Your task to perform on an android device: Show me popular videos on Youtube Image 0: 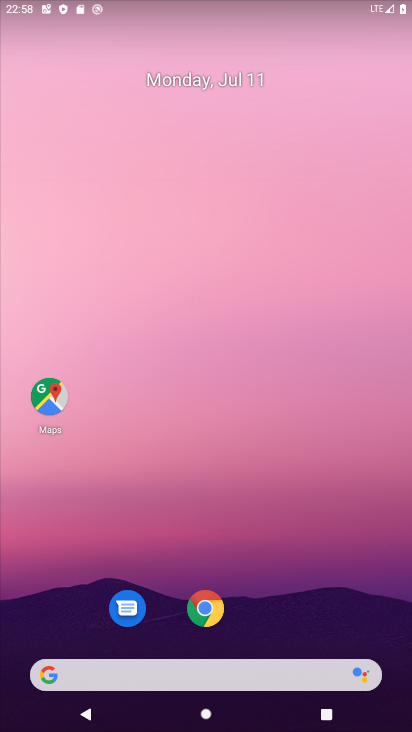
Step 0: click (399, 9)
Your task to perform on an android device: Show me popular videos on Youtube Image 1: 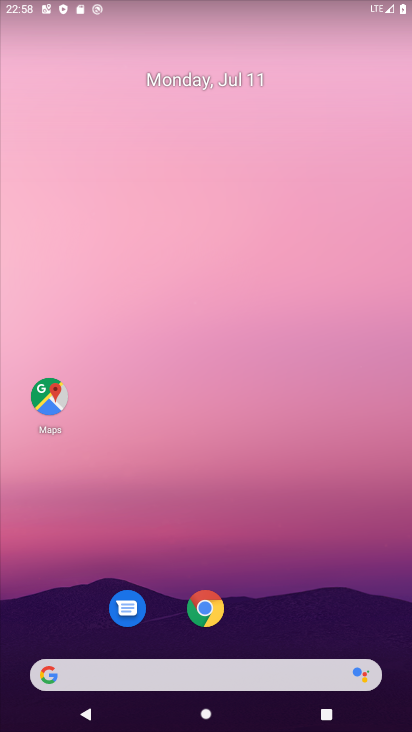
Step 1: drag from (26, 718) to (220, 112)
Your task to perform on an android device: Show me popular videos on Youtube Image 2: 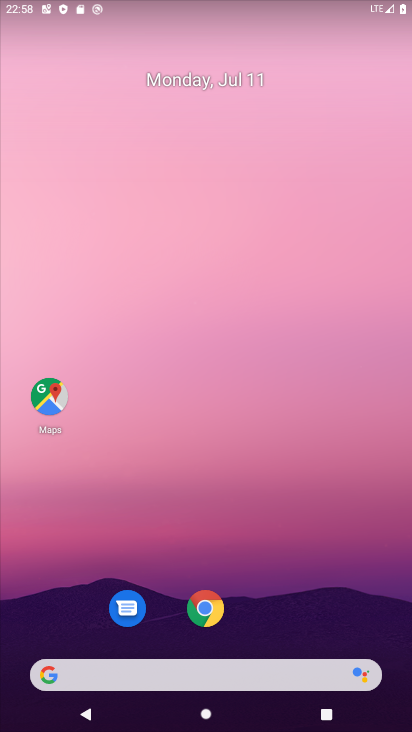
Step 2: drag from (34, 713) to (158, 282)
Your task to perform on an android device: Show me popular videos on Youtube Image 3: 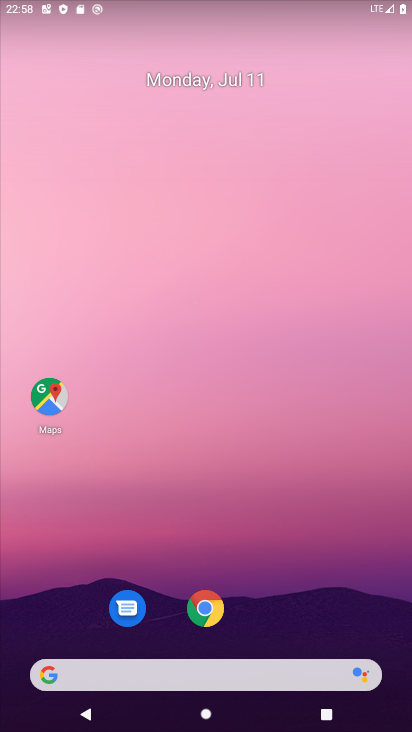
Step 3: drag from (59, 702) to (404, 68)
Your task to perform on an android device: Show me popular videos on Youtube Image 4: 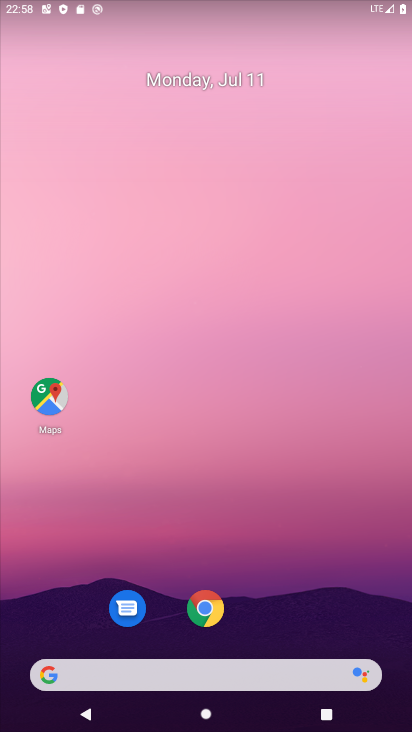
Step 4: drag from (20, 713) to (238, 152)
Your task to perform on an android device: Show me popular videos on Youtube Image 5: 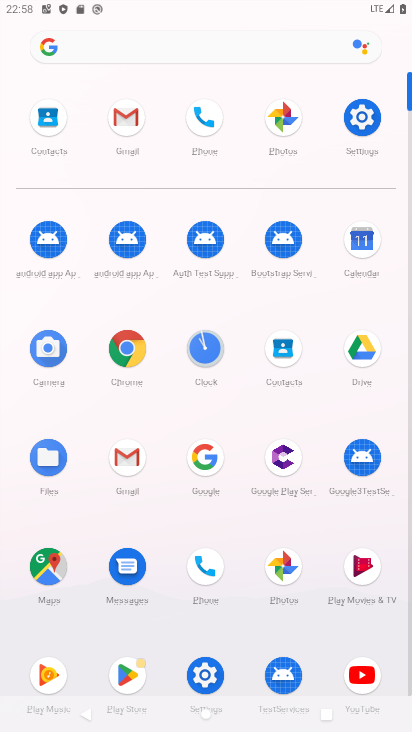
Step 5: click (359, 658)
Your task to perform on an android device: Show me popular videos on Youtube Image 6: 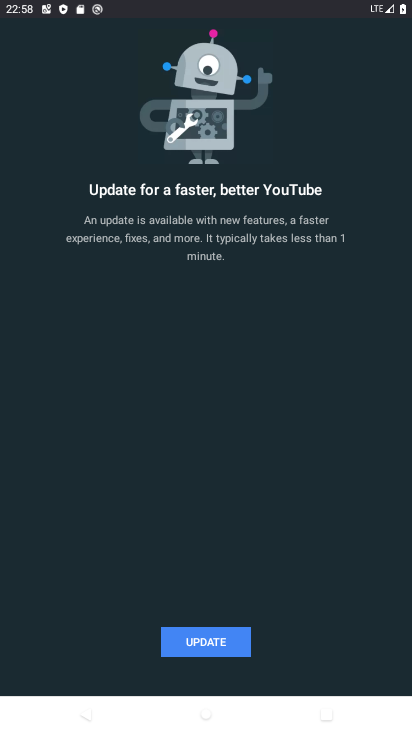
Step 6: click (229, 649)
Your task to perform on an android device: Show me popular videos on Youtube Image 7: 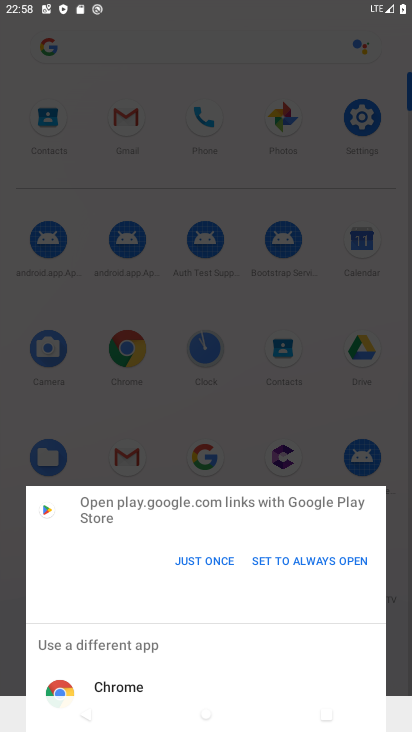
Step 7: click (193, 563)
Your task to perform on an android device: Show me popular videos on Youtube Image 8: 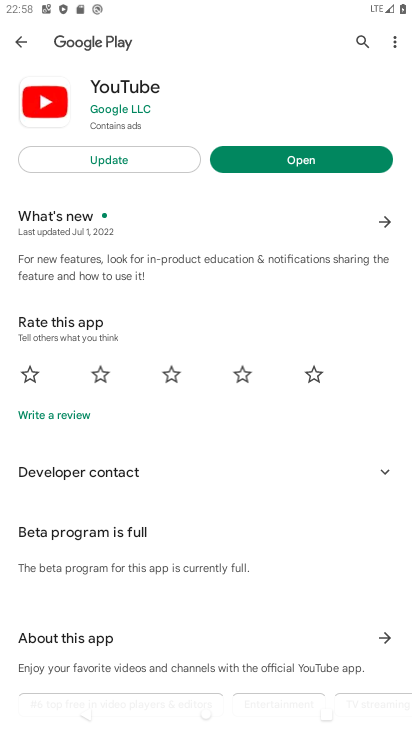
Step 8: click (259, 161)
Your task to perform on an android device: Show me popular videos on Youtube Image 9: 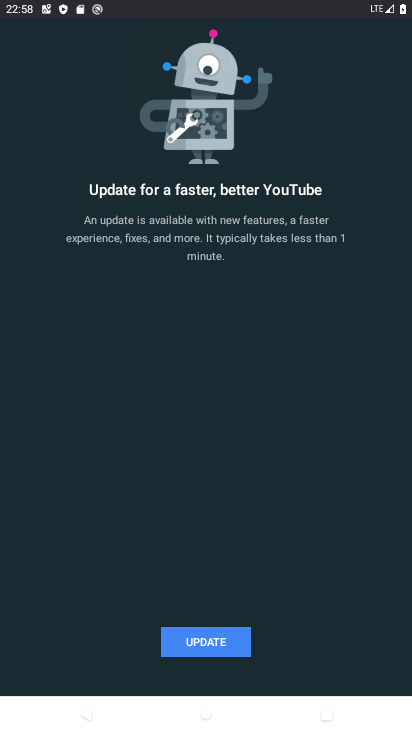
Step 9: task complete